Your task to perform on an android device: Open Youtube and go to the subscriptions tab Image 0: 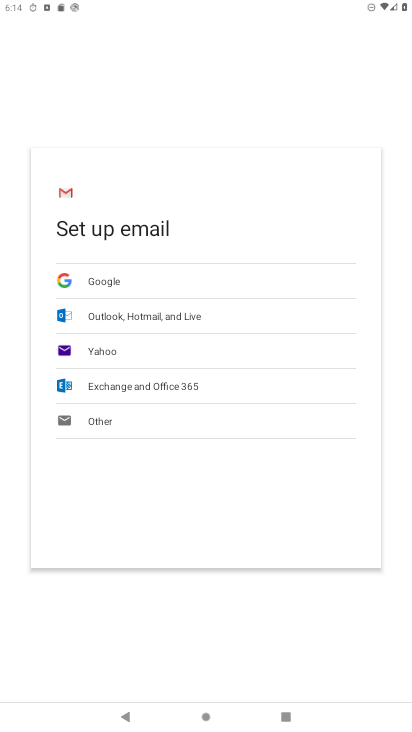
Step 0: press home button
Your task to perform on an android device: Open Youtube and go to the subscriptions tab Image 1: 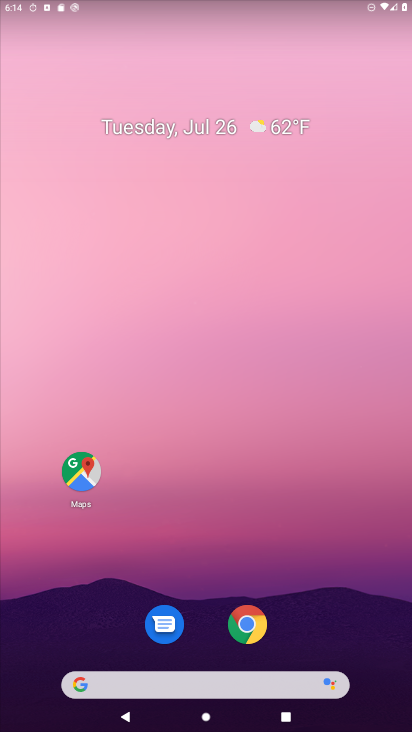
Step 1: drag from (246, 681) to (292, 49)
Your task to perform on an android device: Open Youtube and go to the subscriptions tab Image 2: 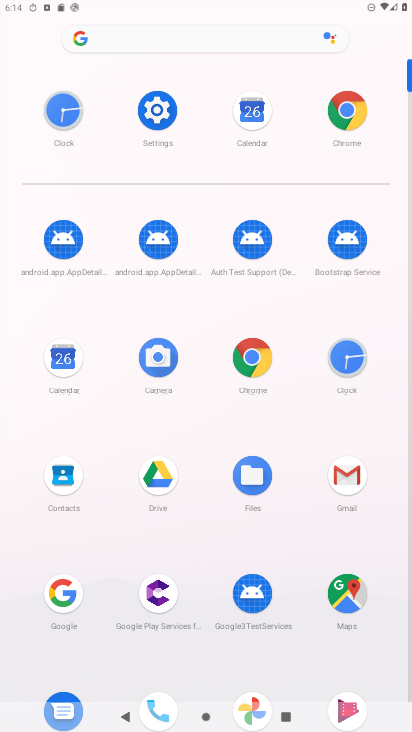
Step 2: drag from (294, 681) to (283, 147)
Your task to perform on an android device: Open Youtube and go to the subscriptions tab Image 3: 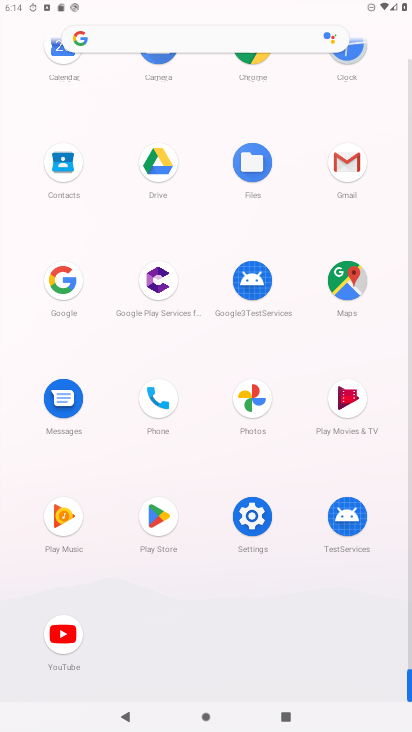
Step 3: click (66, 640)
Your task to perform on an android device: Open Youtube and go to the subscriptions tab Image 4: 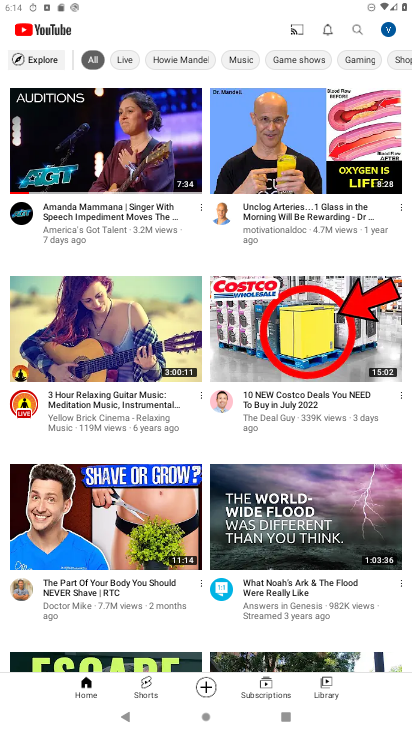
Step 4: click (253, 687)
Your task to perform on an android device: Open Youtube and go to the subscriptions tab Image 5: 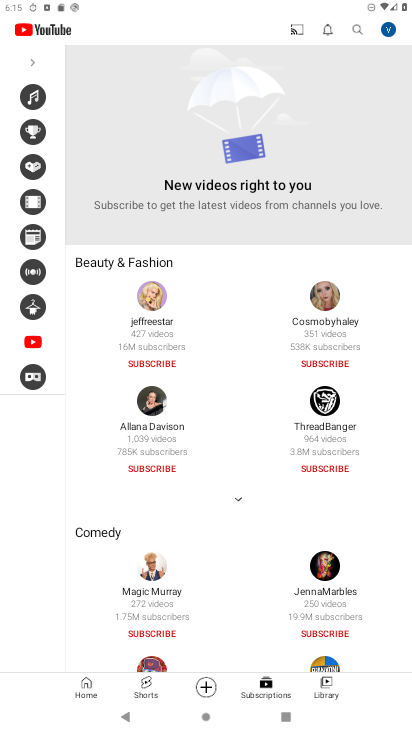
Step 5: task complete